Your task to perform on an android device: Go to Google Image 0: 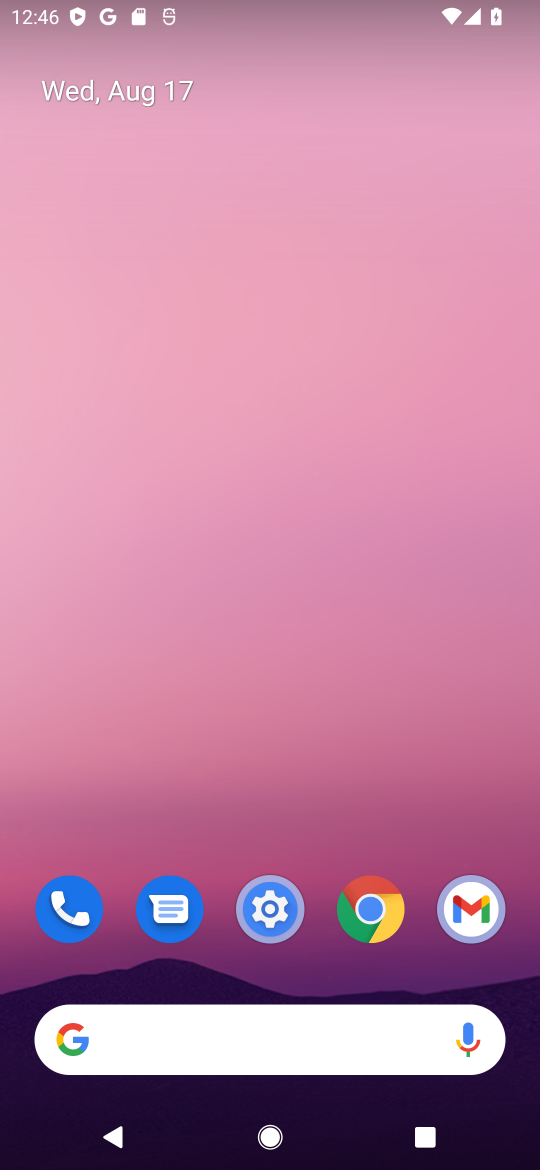
Step 0: click (67, 1038)
Your task to perform on an android device: Go to Google Image 1: 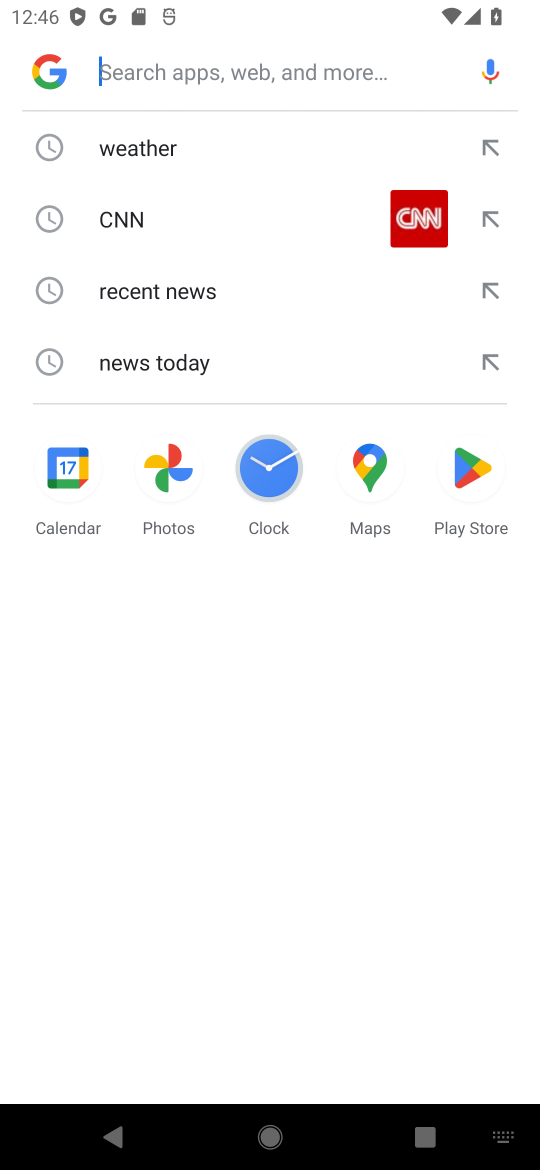
Step 1: click (39, 77)
Your task to perform on an android device: Go to Google Image 2: 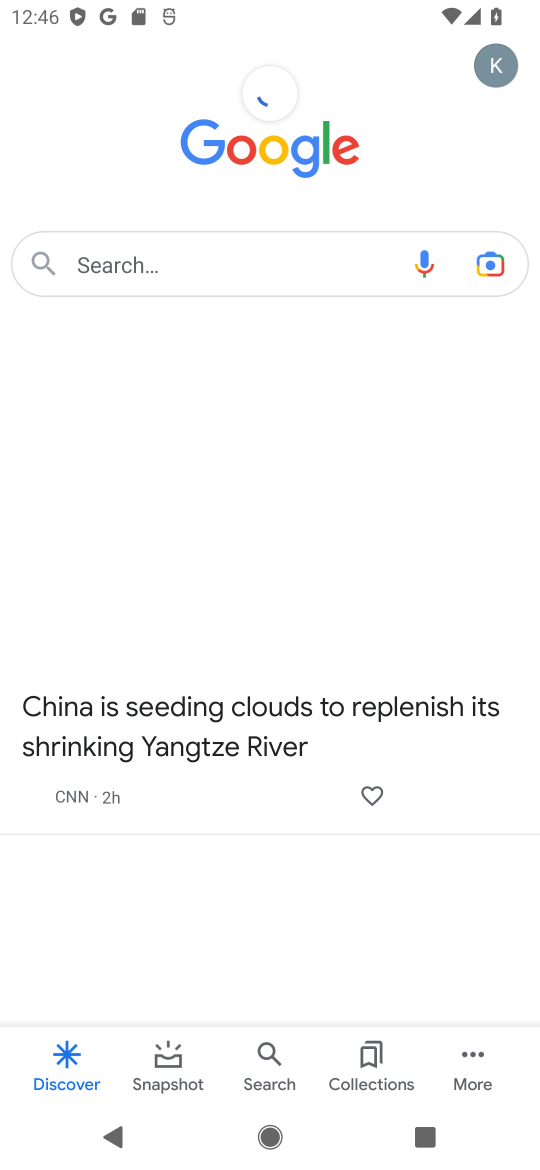
Step 2: task complete